Your task to perform on an android device: check the backup settings in the google photos Image 0: 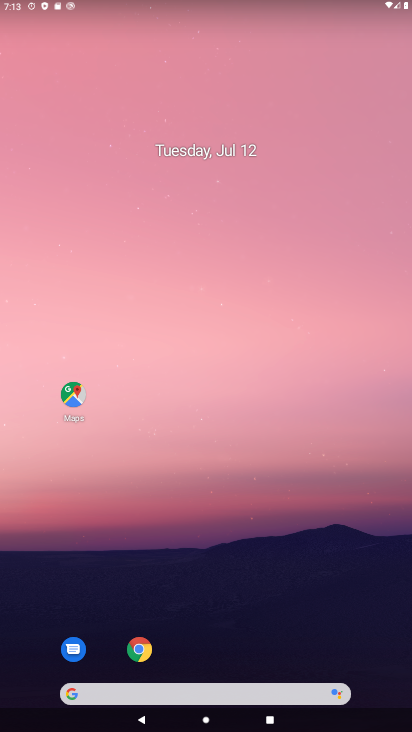
Step 0: drag from (194, 687) to (179, 178)
Your task to perform on an android device: check the backup settings in the google photos Image 1: 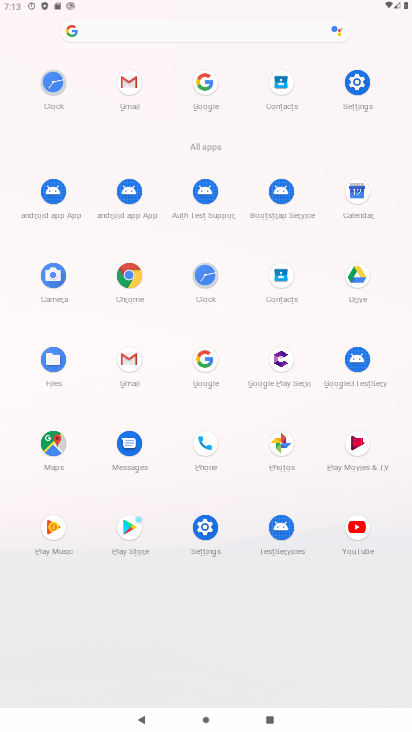
Step 1: click (282, 445)
Your task to perform on an android device: check the backup settings in the google photos Image 2: 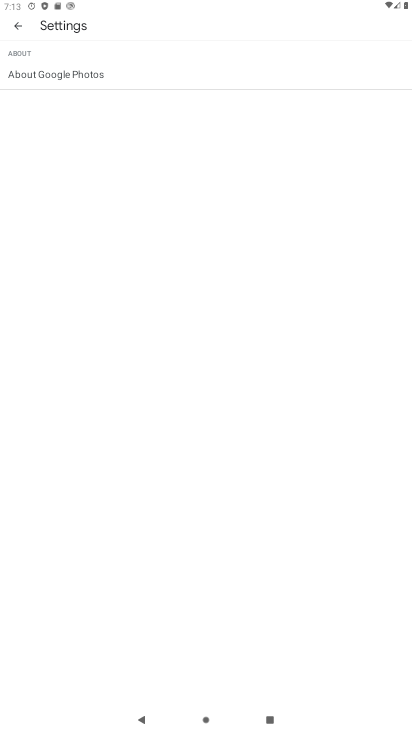
Step 2: press back button
Your task to perform on an android device: check the backup settings in the google photos Image 3: 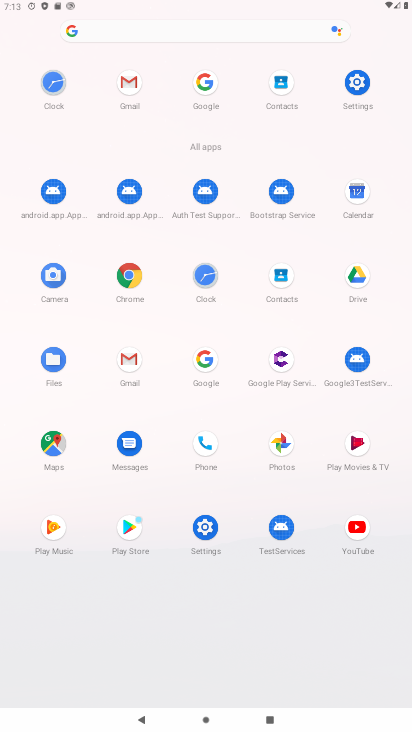
Step 3: click (283, 447)
Your task to perform on an android device: check the backup settings in the google photos Image 4: 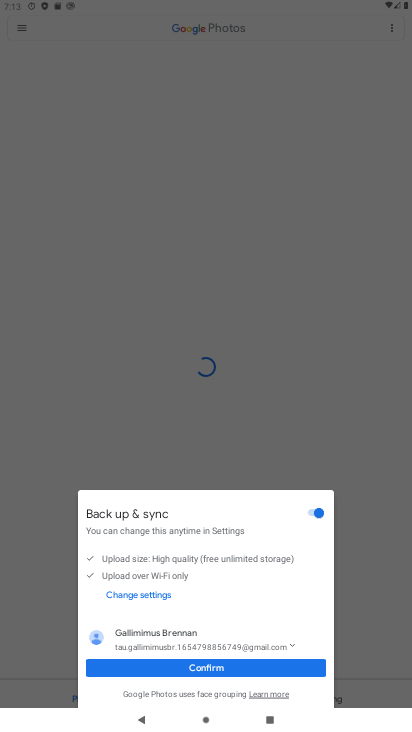
Step 4: click (199, 664)
Your task to perform on an android device: check the backup settings in the google photos Image 5: 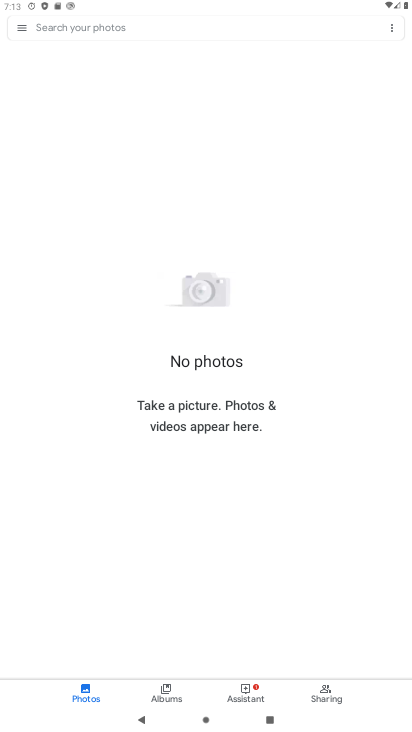
Step 5: click (21, 30)
Your task to perform on an android device: check the backup settings in the google photos Image 6: 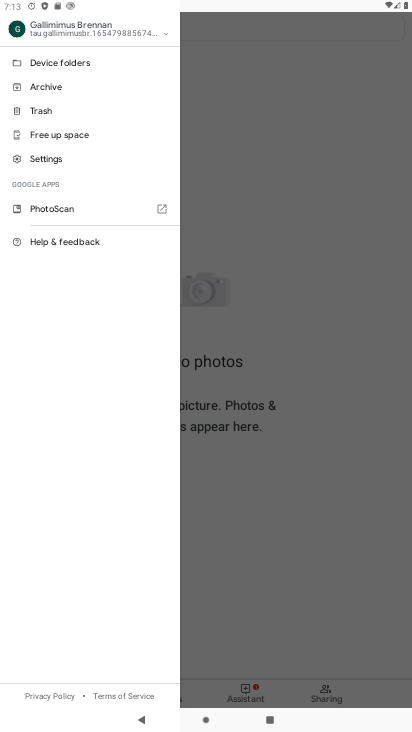
Step 6: click (43, 157)
Your task to perform on an android device: check the backup settings in the google photos Image 7: 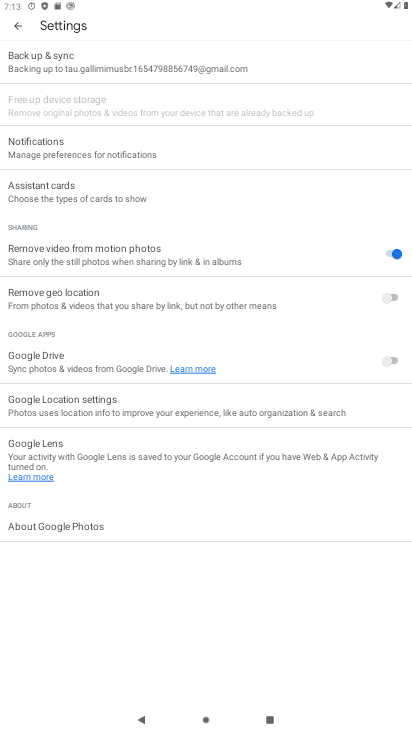
Step 7: click (64, 69)
Your task to perform on an android device: check the backup settings in the google photos Image 8: 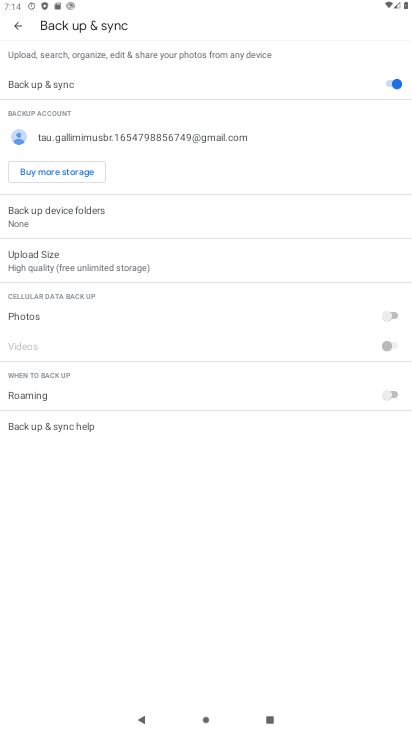
Step 8: task complete